Your task to perform on an android device: add a label to a message in the gmail app Image 0: 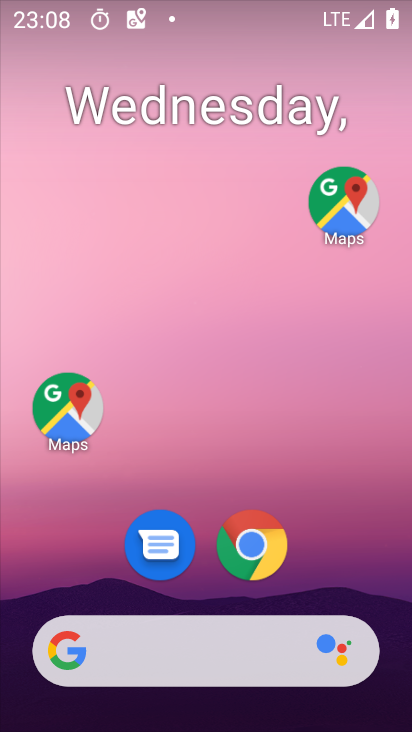
Step 0: drag from (323, 590) to (315, 117)
Your task to perform on an android device: add a label to a message in the gmail app Image 1: 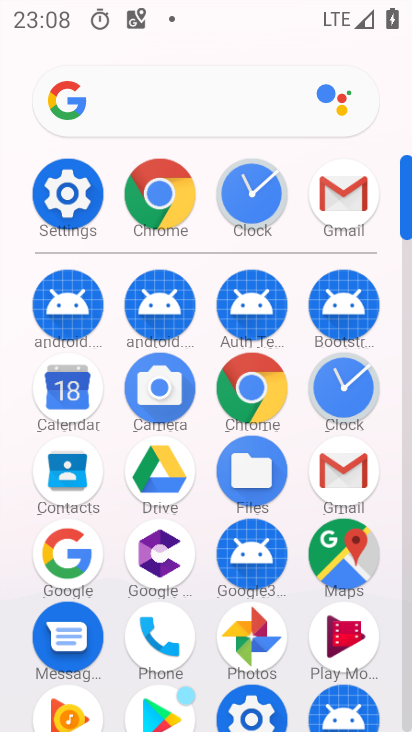
Step 1: click (348, 465)
Your task to perform on an android device: add a label to a message in the gmail app Image 2: 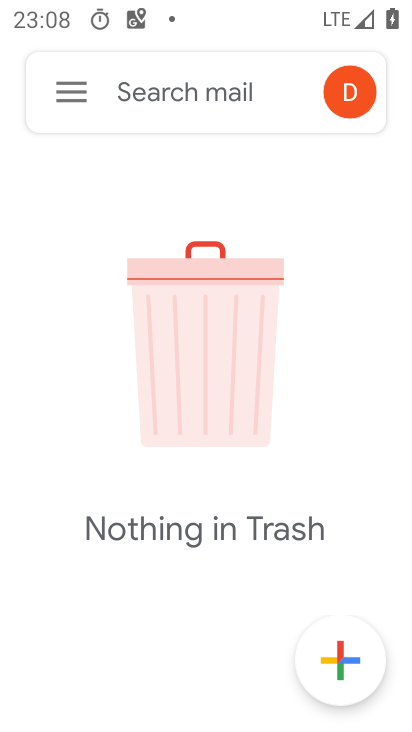
Step 2: click (60, 102)
Your task to perform on an android device: add a label to a message in the gmail app Image 3: 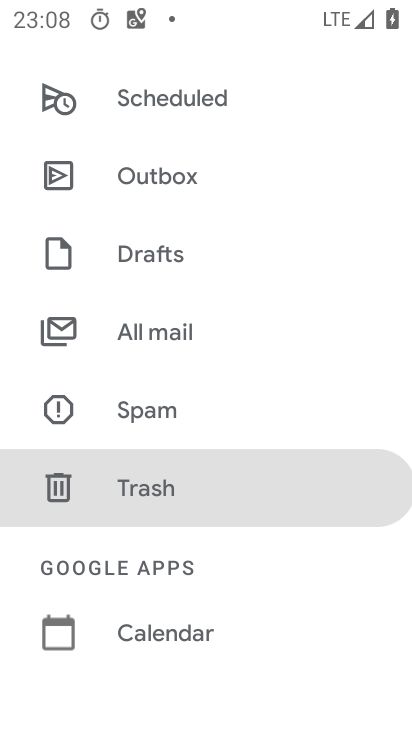
Step 3: click (185, 329)
Your task to perform on an android device: add a label to a message in the gmail app Image 4: 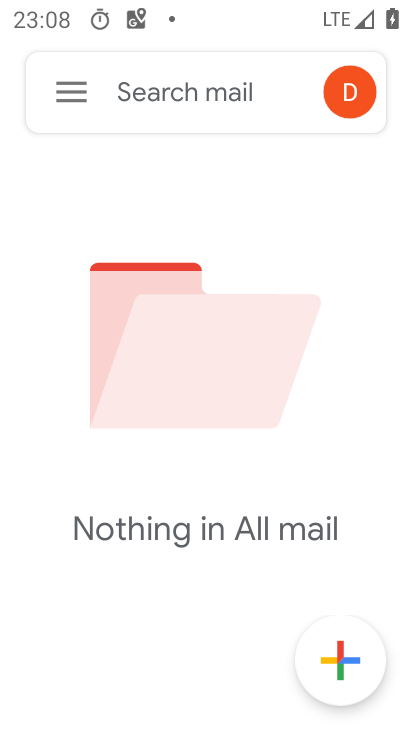
Step 4: task complete